Your task to perform on an android device: Do I have any events this weekend? Image 0: 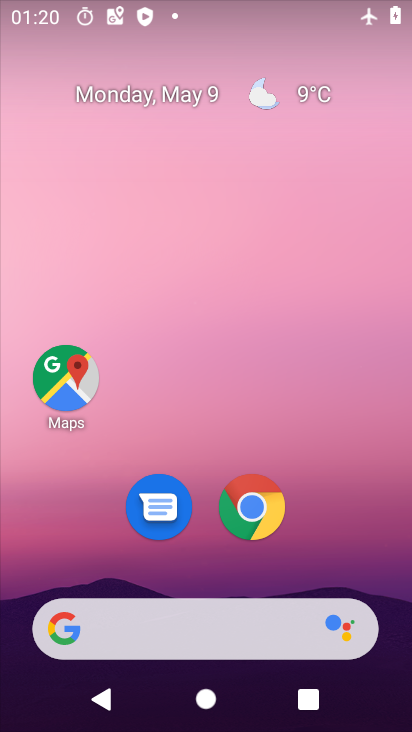
Step 0: drag from (210, 722) to (210, 184)
Your task to perform on an android device: Do I have any events this weekend? Image 1: 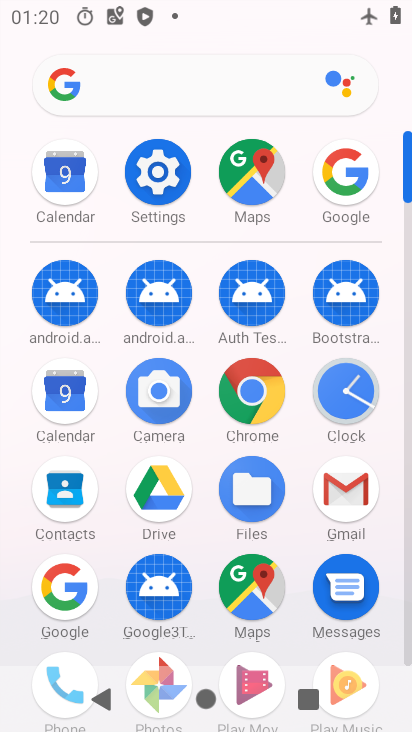
Step 1: click (63, 398)
Your task to perform on an android device: Do I have any events this weekend? Image 2: 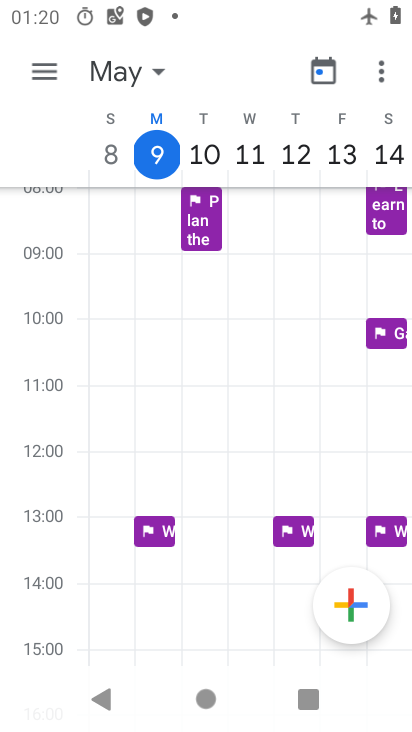
Step 2: click (386, 141)
Your task to perform on an android device: Do I have any events this weekend? Image 3: 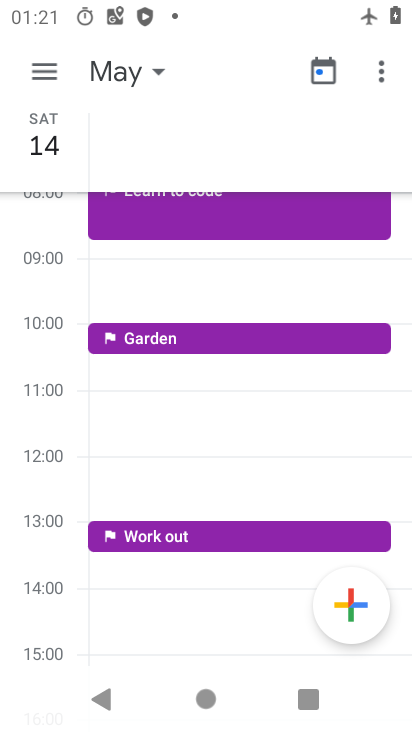
Step 3: task complete